Your task to perform on an android device: refresh tabs in the chrome app Image 0: 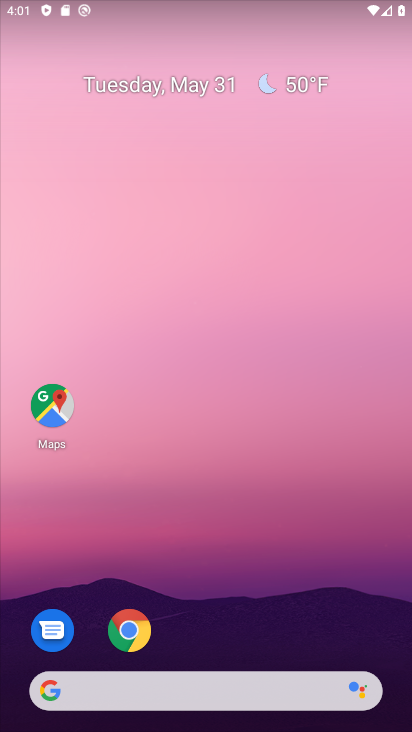
Step 0: drag from (339, 579) to (243, 12)
Your task to perform on an android device: refresh tabs in the chrome app Image 1: 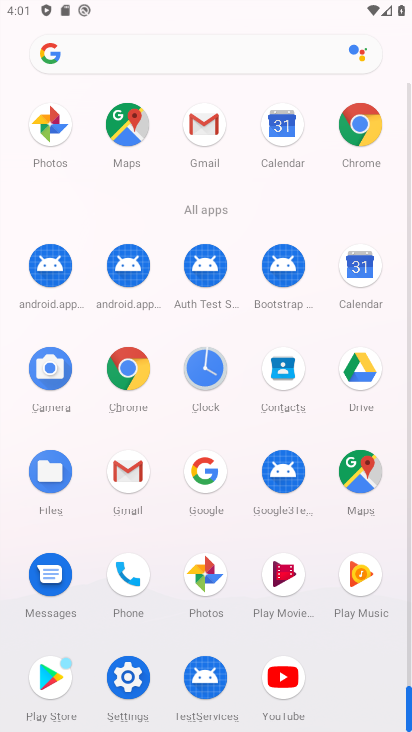
Step 1: drag from (20, 532) to (17, 186)
Your task to perform on an android device: refresh tabs in the chrome app Image 2: 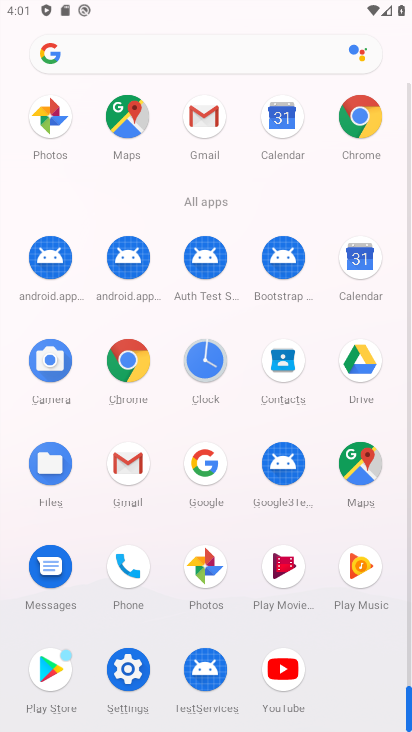
Step 2: click (131, 356)
Your task to perform on an android device: refresh tabs in the chrome app Image 3: 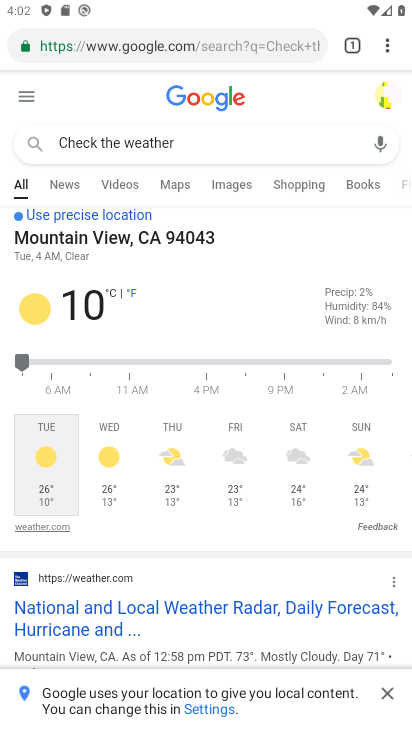
Step 3: click (385, 47)
Your task to perform on an android device: refresh tabs in the chrome app Image 4: 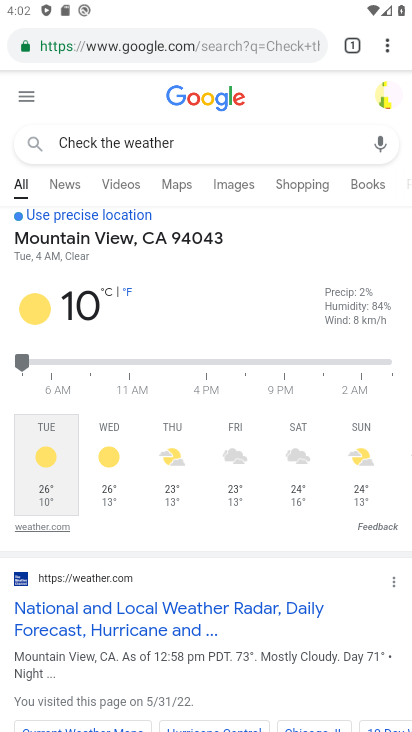
Step 4: task complete